Your task to perform on an android device: Open Google Maps and go to "Timeline" Image 0: 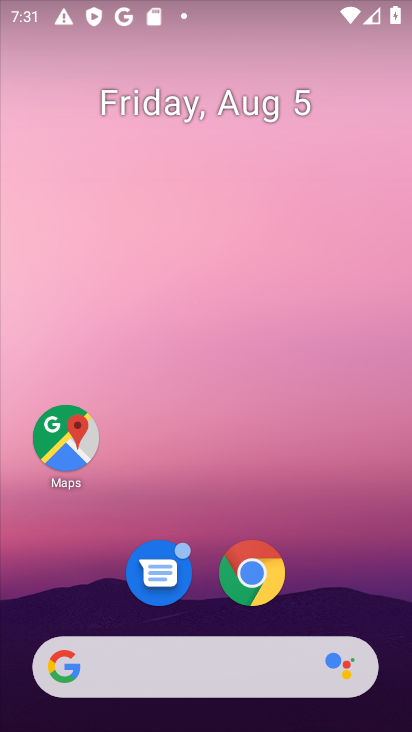
Step 0: click (72, 439)
Your task to perform on an android device: Open Google Maps and go to "Timeline" Image 1: 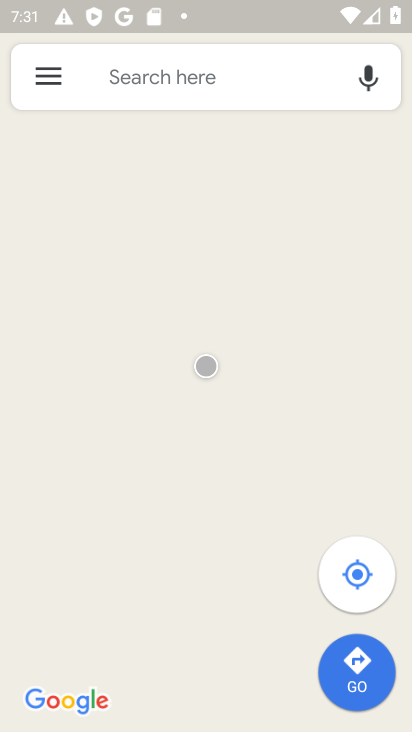
Step 1: click (53, 80)
Your task to perform on an android device: Open Google Maps and go to "Timeline" Image 2: 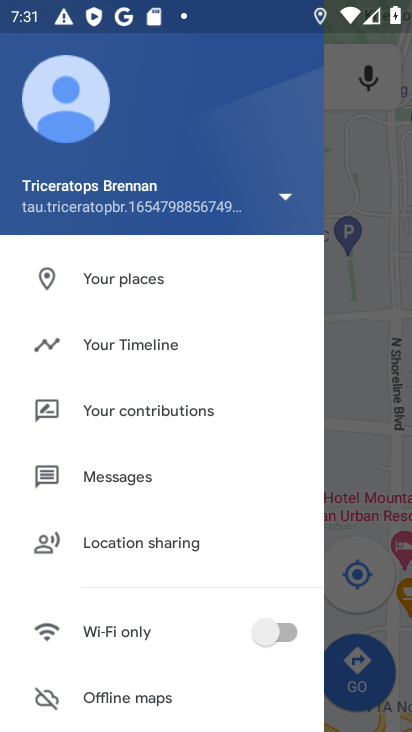
Step 2: click (123, 345)
Your task to perform on an android device: Open Google Maps and go to "Timeline" Image 3: 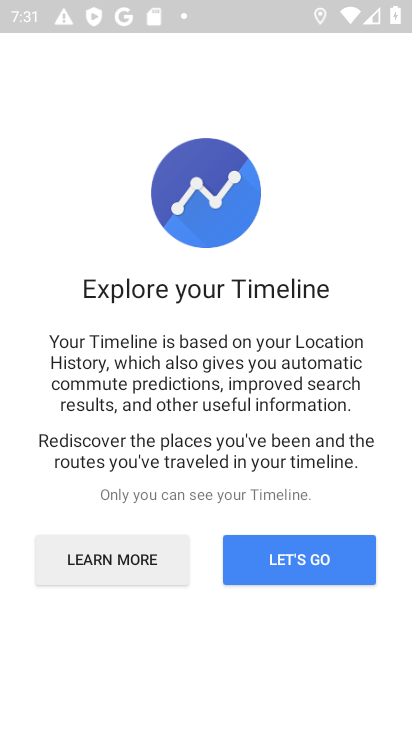
Step 3: click (337, 574)
Your task to perform on an android device: Open Google Maps and go to "Timeline" Image 4: 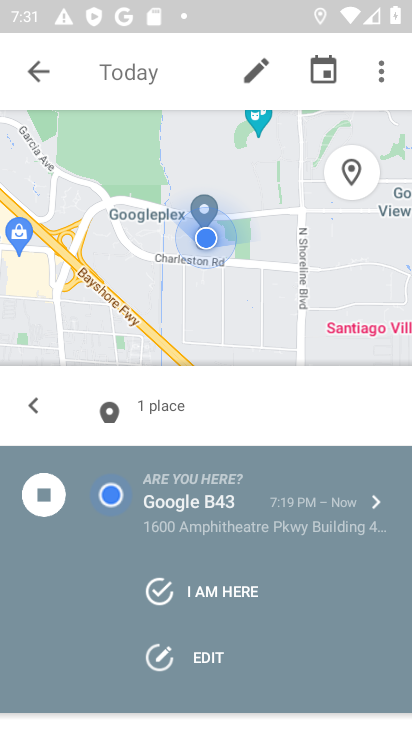
Step 4: task complete